Your task to perform on an android device: When is my next meeting? Image 0: 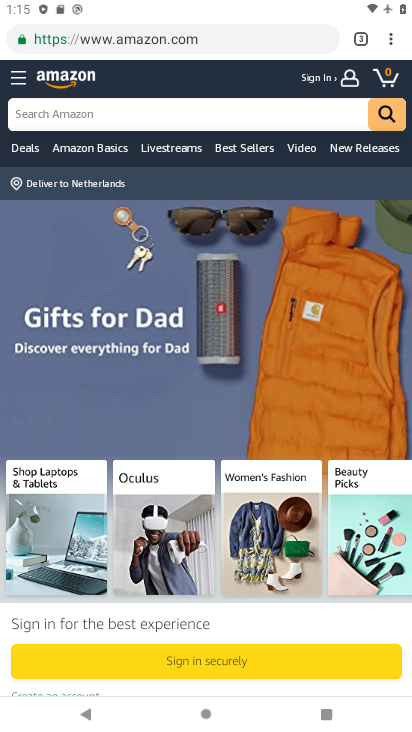
Step 0: press home button
Your task to perform on an android device: When is my next meeting? Image 1: 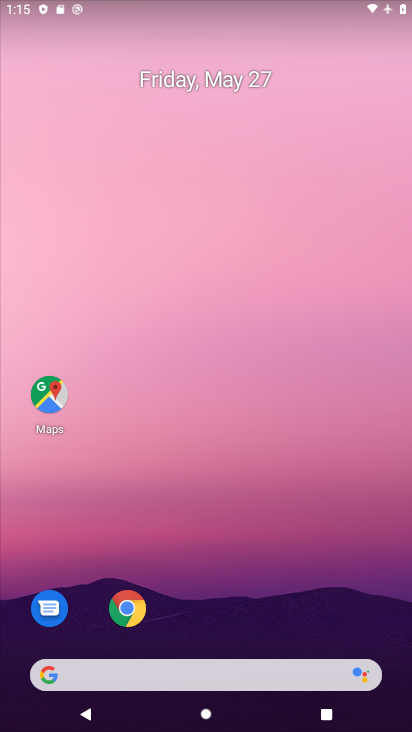
Step 1: drag from (187, 671) to (355, 90)
Your task to perform on an android device: When is my next meeting? Image 2: 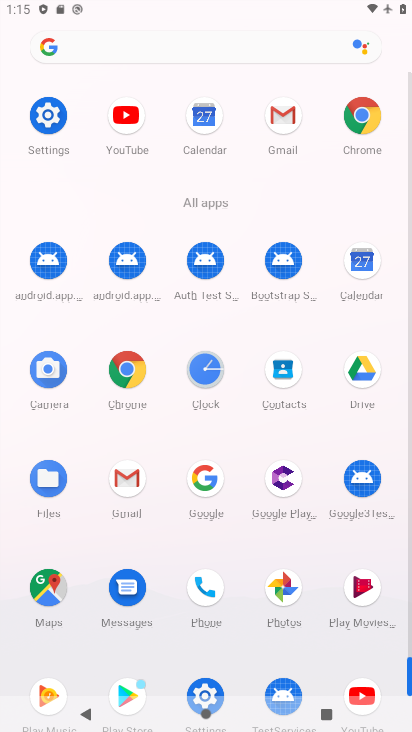
Step 2: click (363, 260)
Your task to perform on an android device: When is my next meeting? Image 3: 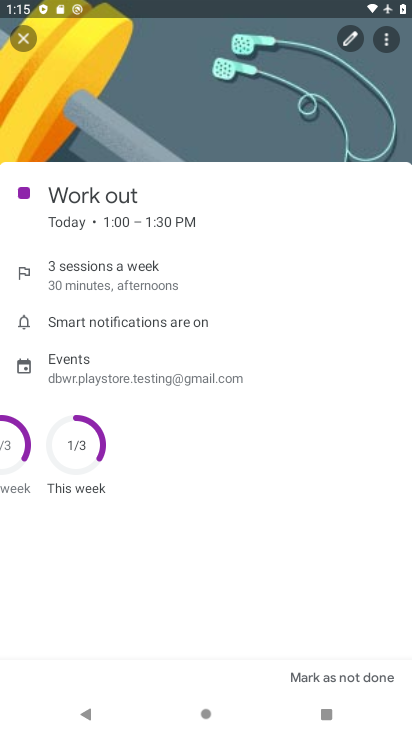
Step 3: task complete